Your task to perform on an android device: toggle notifications settings in the gmail app Image 0: 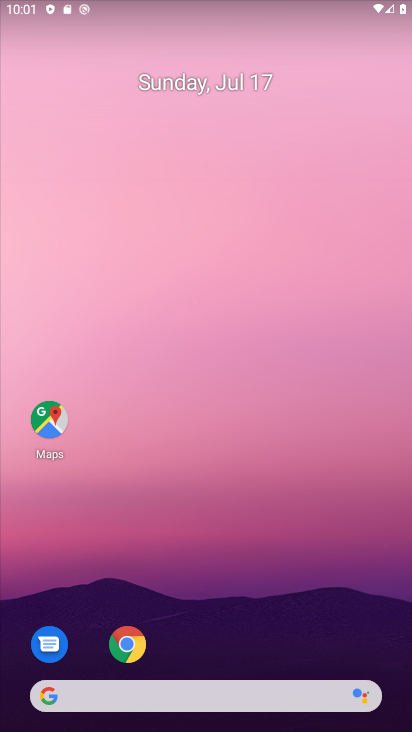
Step 0: drag from (250, 424) to (226, 0)
Your task to perform on an android device: toggle notifications settings in the gmail app Image 1: 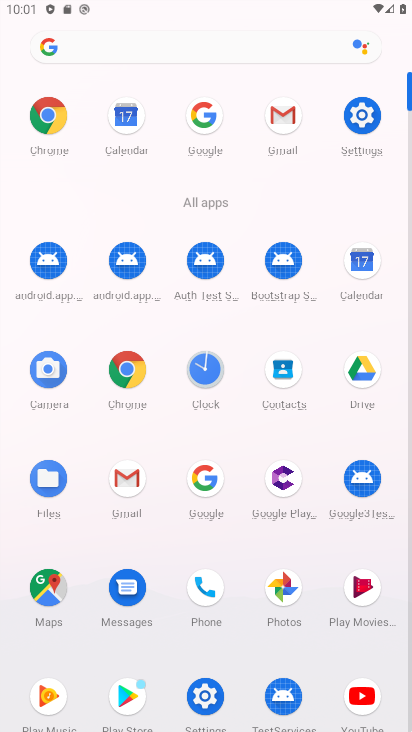
Step 1: click (281, 112)
Your task to perform on an android device: toggle notifications settings in the gmail app Image 2: 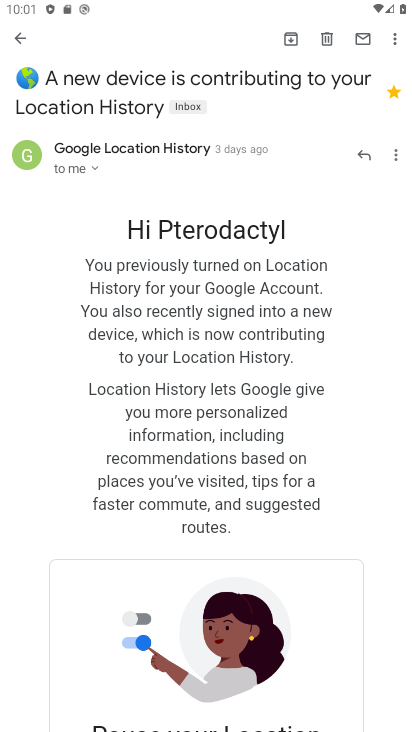
Step 2: click (24, 41)
Your task to perform on an android device: toggle notifications settings in the gmail app Image 3: 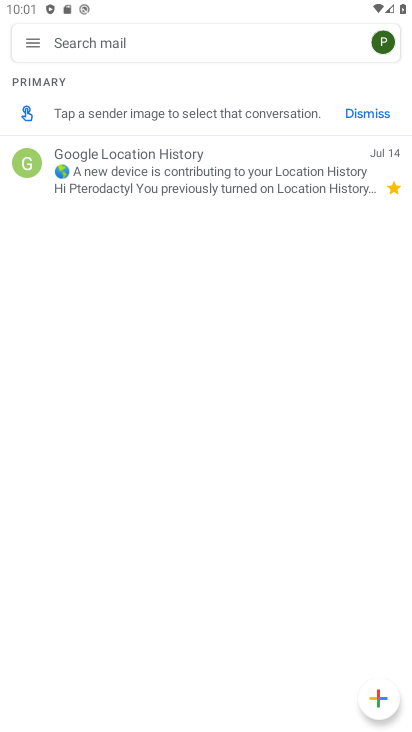
Step 3: click (24, 41)
Your task to perform on an android device: toggle notifications settings in the gmail app Image 4: 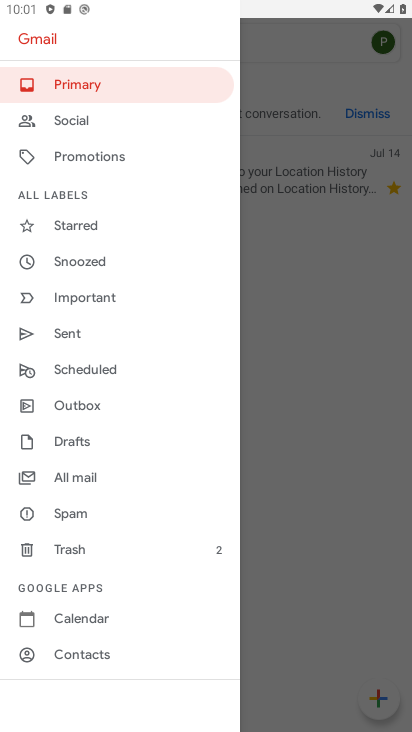
Step 4: drag from (108, 573) to (162, 126)
Your task to perform on an android device: toggle notifications settings in the gmail app Image 5: 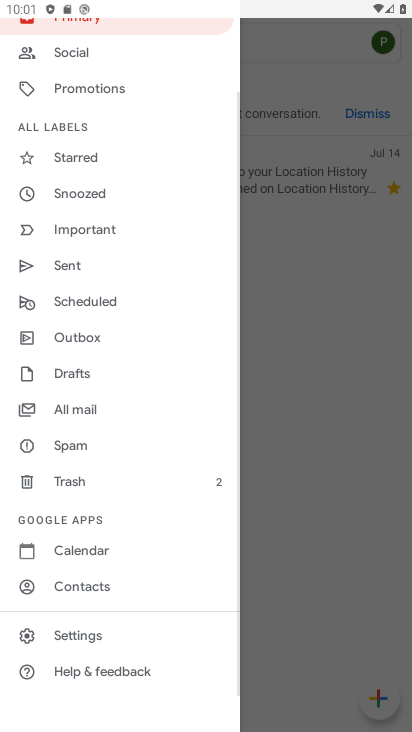
Step 5: click (85, 635)
Your task to perform on an android device: toggle notifications settings in the gmail app Image 6: 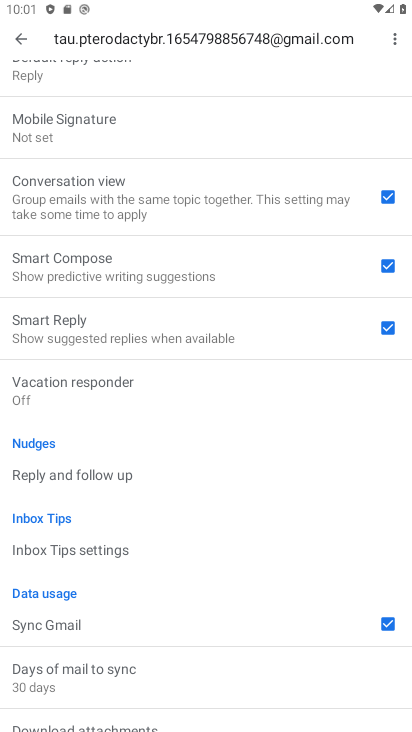
Step 6: drag from (66, 652) to (107, 182)
Your task to perform on an android device: toggle notifications settings in the gmail app Image 7: 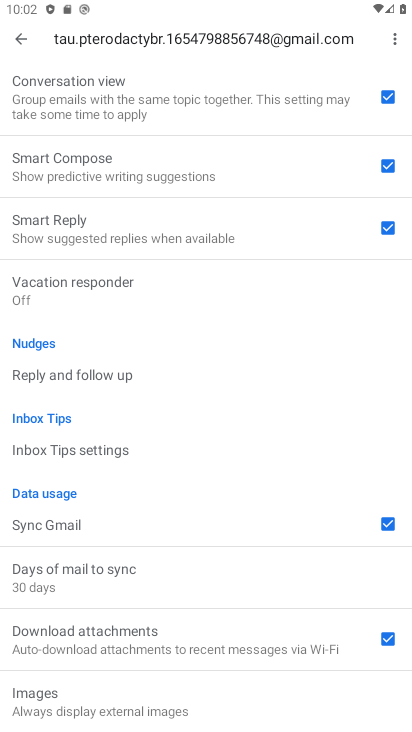
Step 7: drag from (51, 226) to (46, 71)
Your task to perform on an android device: toggle notifications settings in the gmail app Image 8: 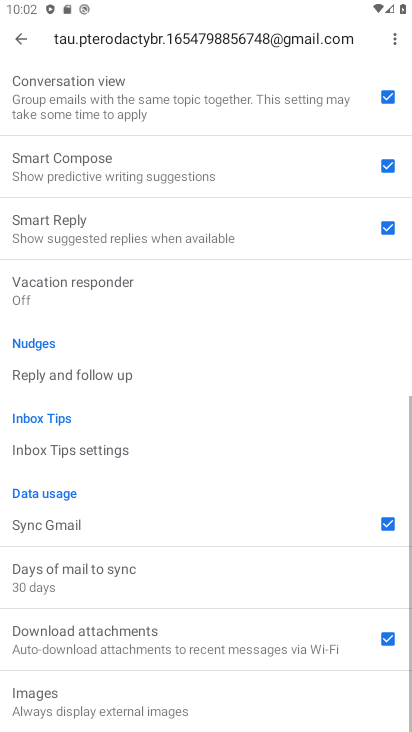
Step 8: drag from (52, 217) to (147, 581)
Your task to perform on an android device: toggle notifications settings in the gmail app Image 9: 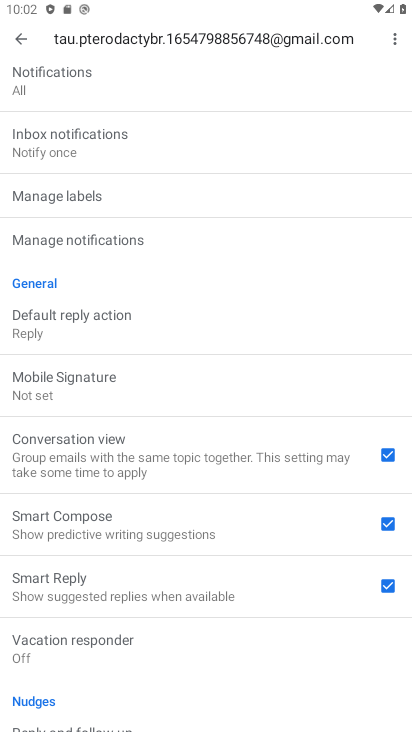
Step 9: drag from (82, 235) to (105, 533)
Your task to perform on an android device: toggle notifications settings in the gmail app Image 10: 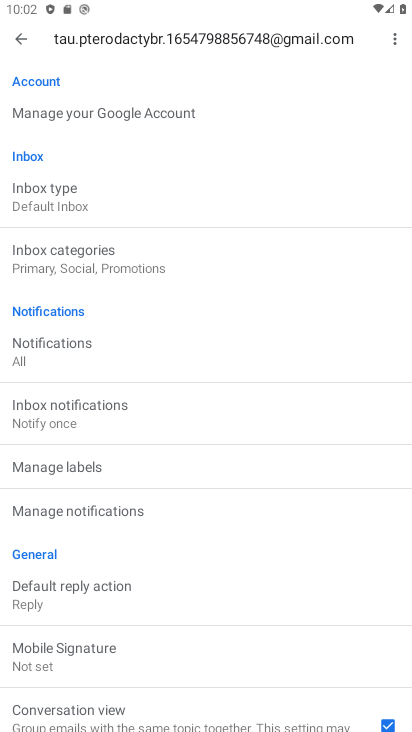
Step 10: drag from (117, 197) to (115, 636)
Your task to perform on an android device: toggle notifications settings in the gmail app Image 11: 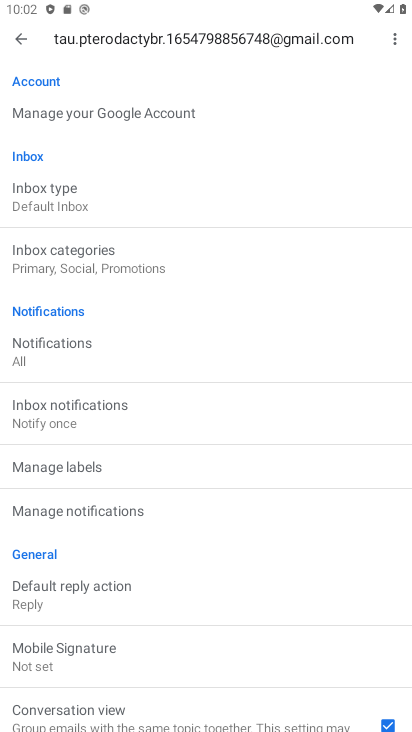
Step 11: click (79, 351)
Your task to perform on an android device: toggle notifications settings in the gmail app Image 12: 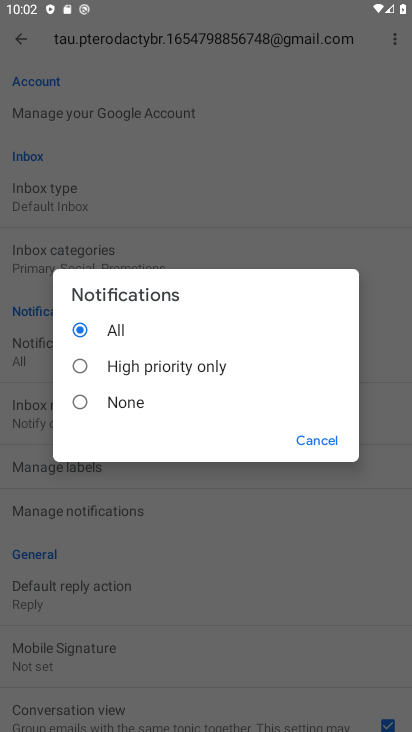
Step 12: click (106, 379)
Your task to perform on an android device: toggle notifications settings in the gmail app Image 13: 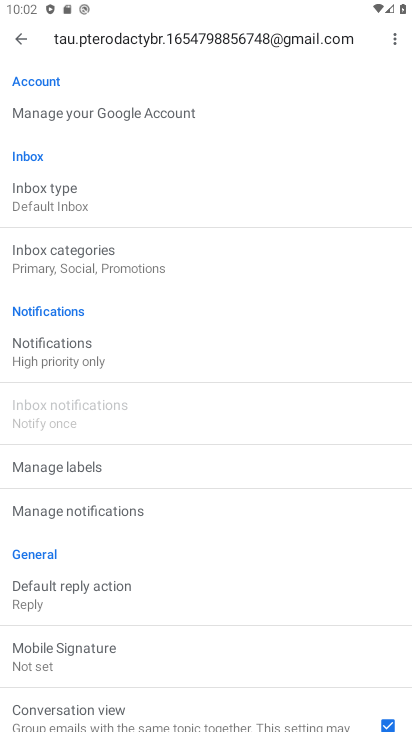
Step 13: task complete